Your task to perform on an android device: turn off notifications in google photos Image 0: 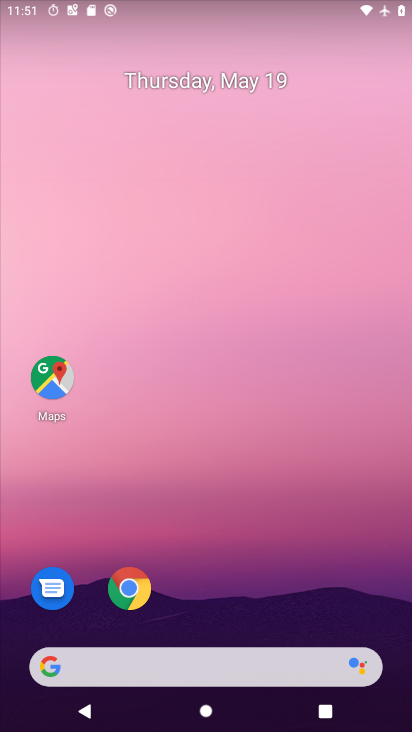
Step 0: drag from (213, 622) to (298, 182)
Your task to perform on an android device: turn off notifications in google photos Image 1: 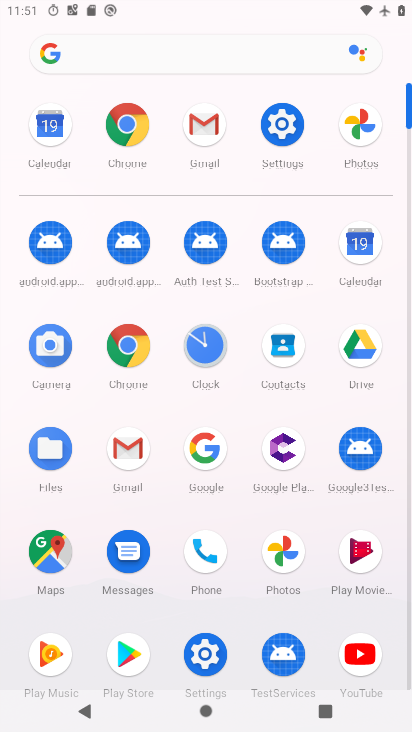
Step 1: click (276, 560)
Your task to perform on an android device: turn off notifications in google photos Image 2: 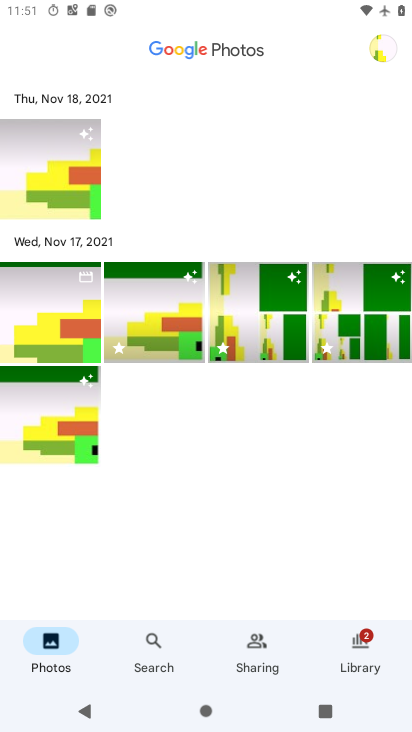
Step 2: click (389, 45)
Your task to perform on an android device: turn off notifications in google photos Image 3: 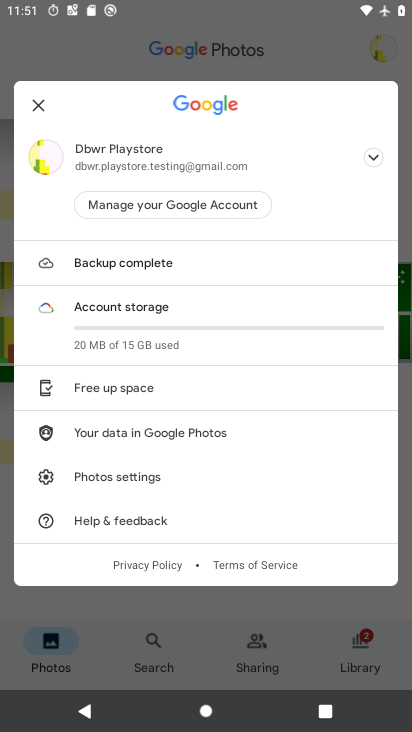
Step 3: click (124, 478)
Your task to perform on an android device: turn off notifications in google photos Image 4: 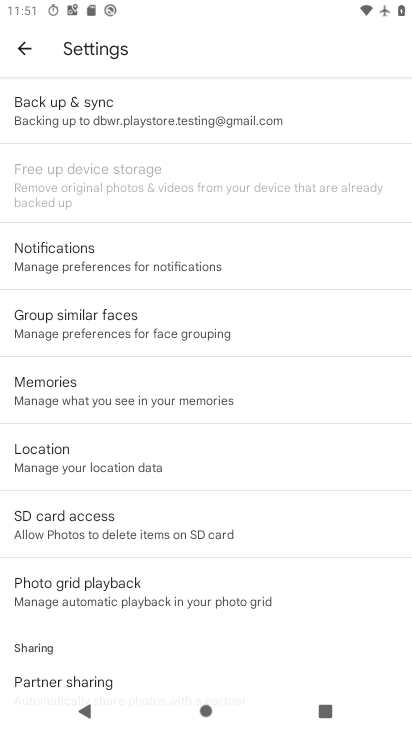
Step 4: click (124, 249)
Your task to perform on an android device: turn off notifications in google photos Image 5: 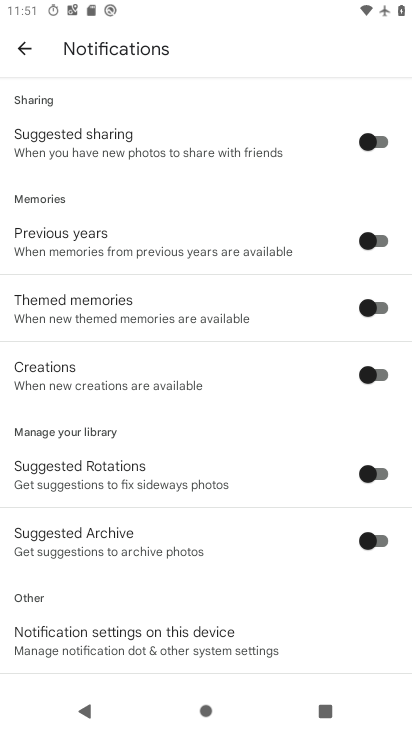
Step 5: click (185, 648)
Your task to perform on an android device: turn off notifications in google photos Image 6: 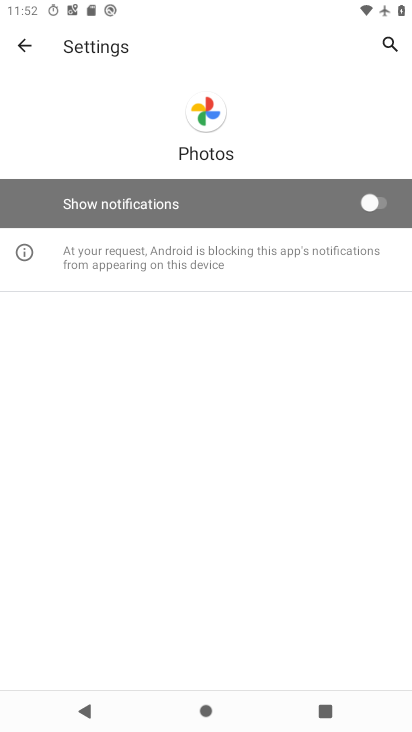
Step 6: task complete